Your task to perform on an android device: Show me productivity apps on the Play Store Image 0: 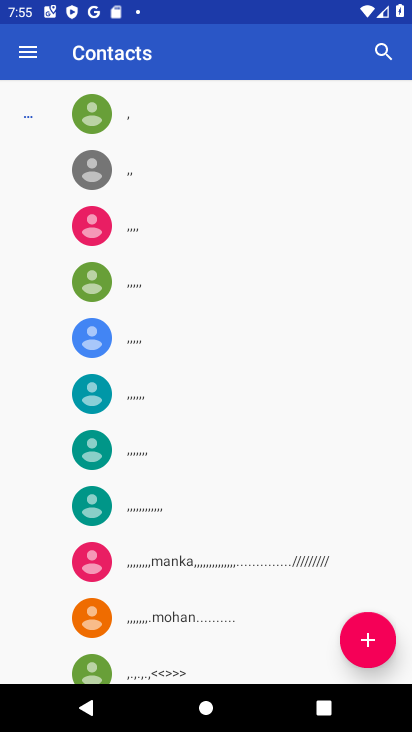
Step 0: press home button
Your task to perform on an android device: Show me productivity apps on the Play Store Image 1: 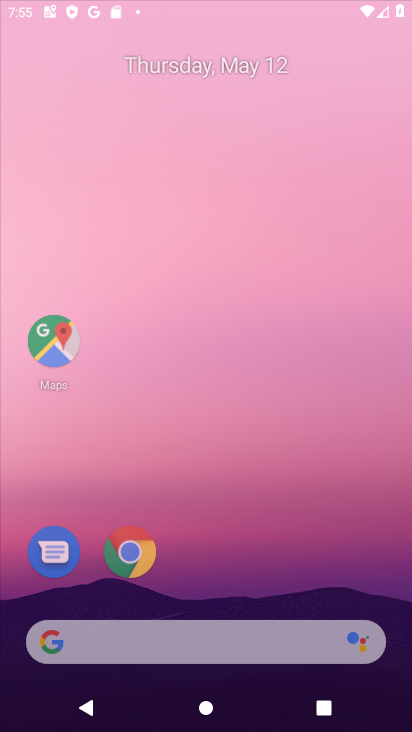
Step 1: press home button
Your task to perform on an android device: Show me productivity apps on the Play Store Image 2: 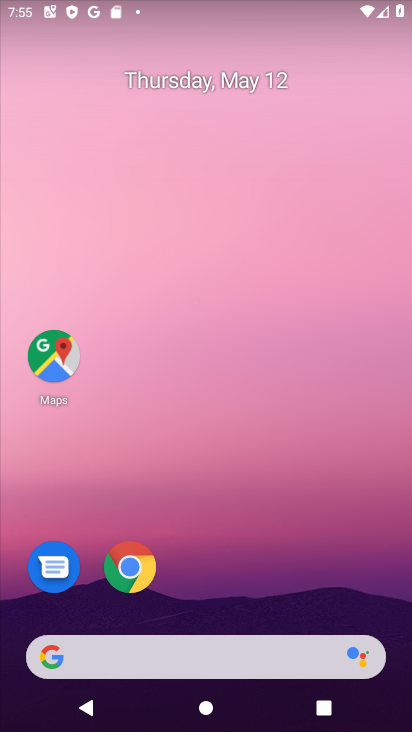
Step 2: drag from (283, 646) to (334, 90)
Your task to perform on an android device: Show me productivity apps on the Play Store Image 3: 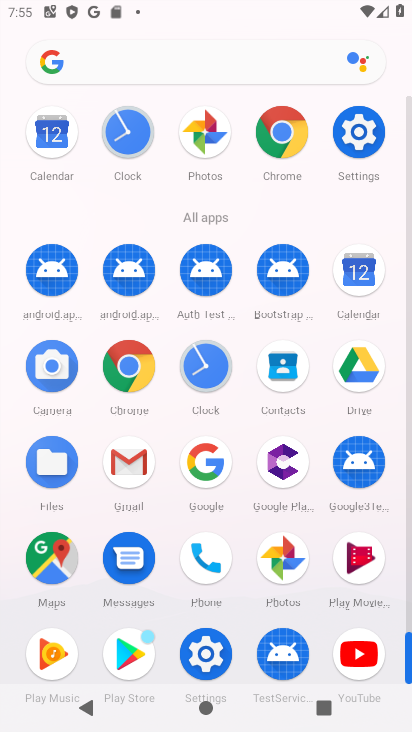
Step 3: click (131, 649)
Your task to perform on an android device: Show me productivity apps on the Play Store Image 4: 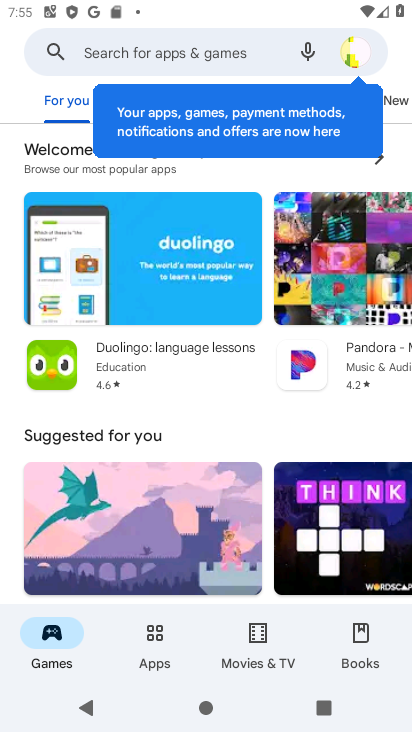
Step 4: click (187, 71)
Your task to perform on an android device: Show me productivity apps on the Play Store Image 5: 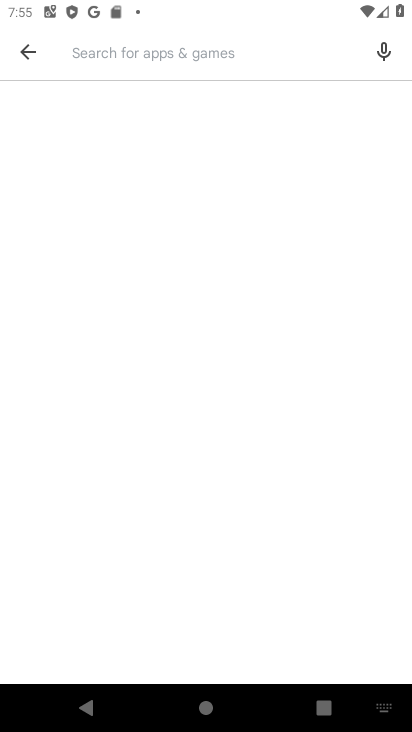
Step 5: type "productivity aaps"
Your task to perform on an android device: Show me productivity apps on the Play Store Image 6: 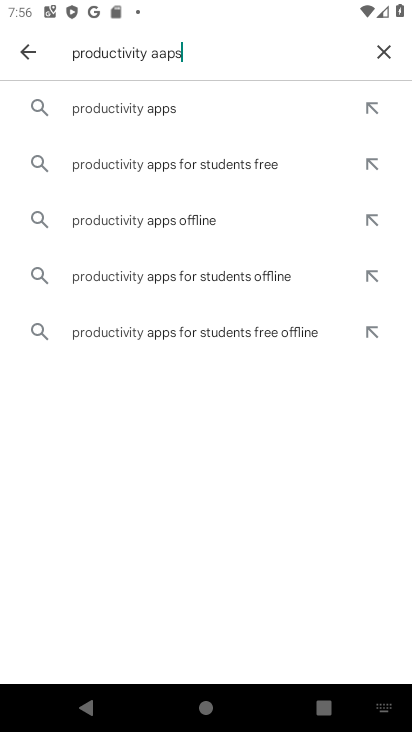
Step 6: click (171, 105)
Your task to perform on an android device: Show me productivity apps on the Play Store Image 7: 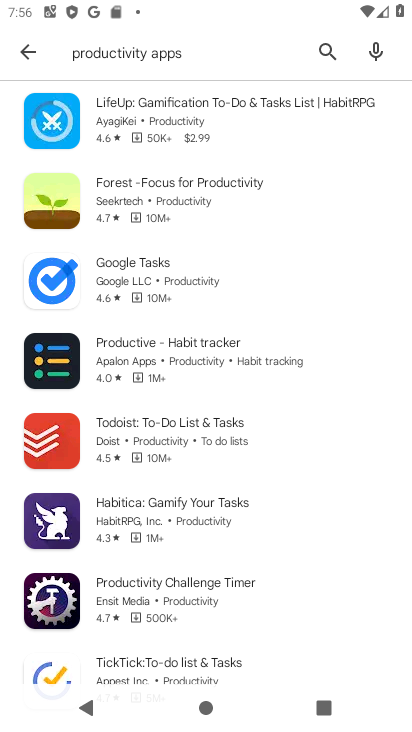
Step 7: task complete